Your task to perform on an android device: Open settings on Google Maps Image 0: 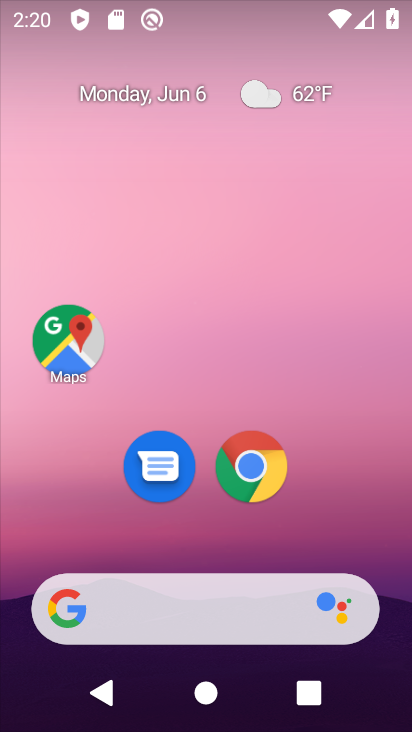
Step 0: drag from (387, 565) to (255, 156)
Your task to perform on an android device: Open settings on Google Maps Image 1: 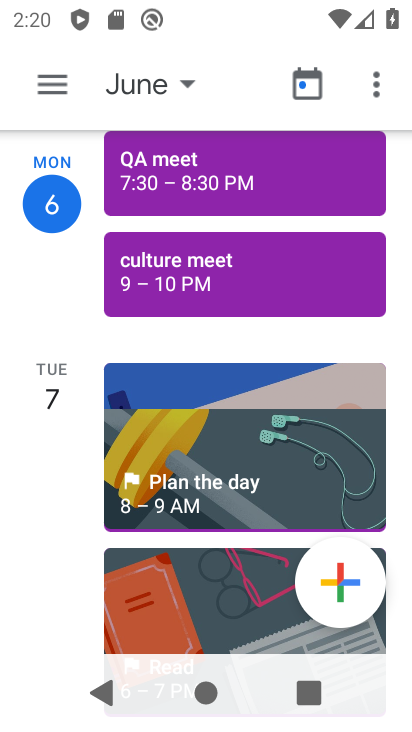
Step 1: press home button
Your task to perform on an android device: Open settings on Google Maps Image 2: 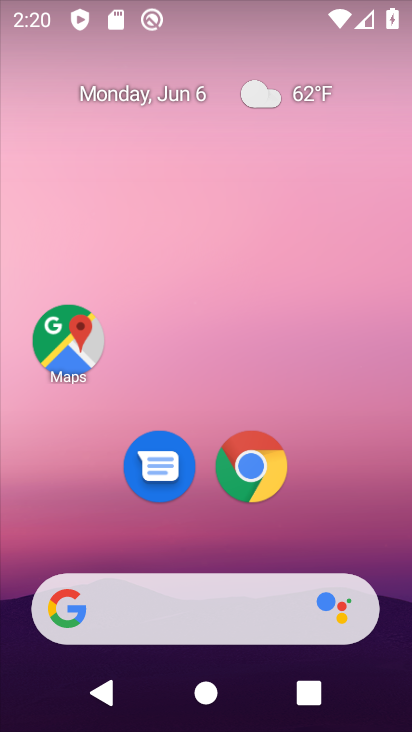
Step 2: drag from (387, 581) to (333, 282)
Your task to perform on an android device: Open settings on Google Maps Image 3: 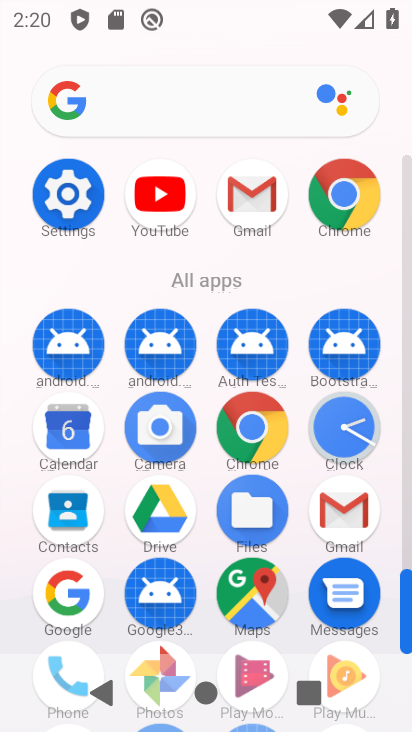
Step 3: click (258, 590)
Your task to perform on an android device: Open settings on Google Maps Image 4: 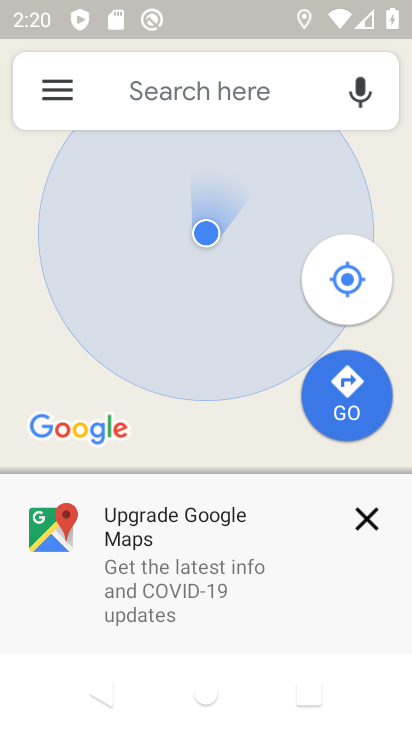
Step 4: click (67, 103)
Your task to perform on an android device: Open settings on Google Maps Image 5: 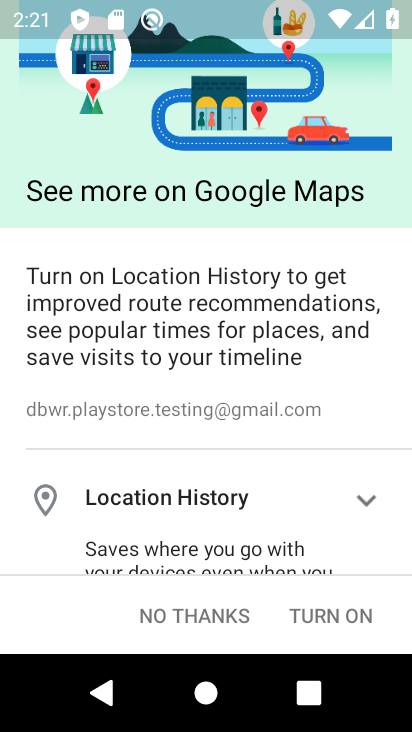
Step 5: drag from (243, 571) to (218, 138)
Your task to perform on an android device: Open settings on Google Maps Image 6: 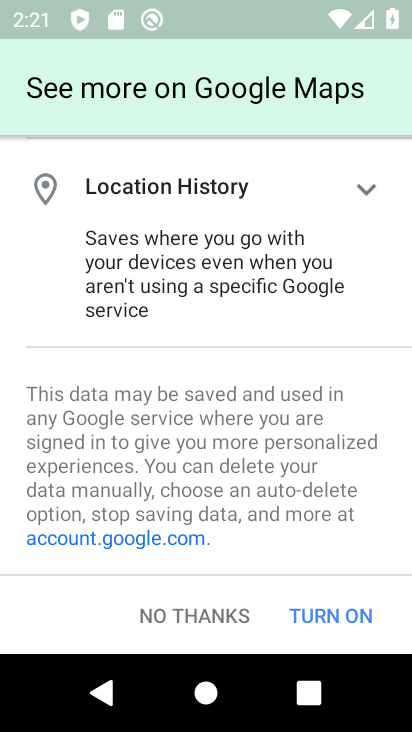
Step 6: click (191, 618)
Your task to perform on an android device: Open settings on Google Maps Image 7: 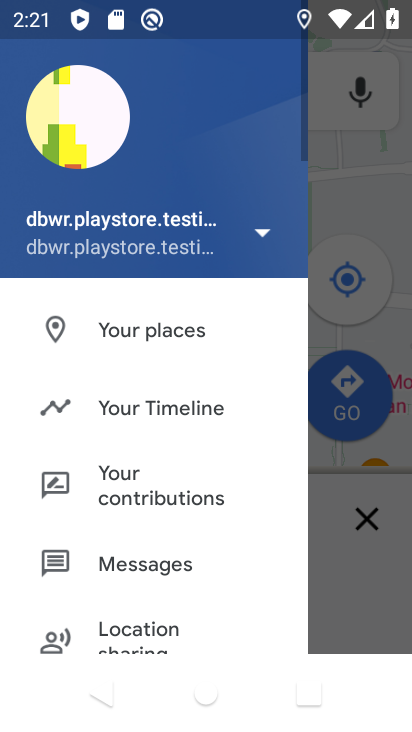
Step 7: drag from (162, 637) to (186, 65)
Your task to perform on an android device: Open settings on Google Maps Image 8: 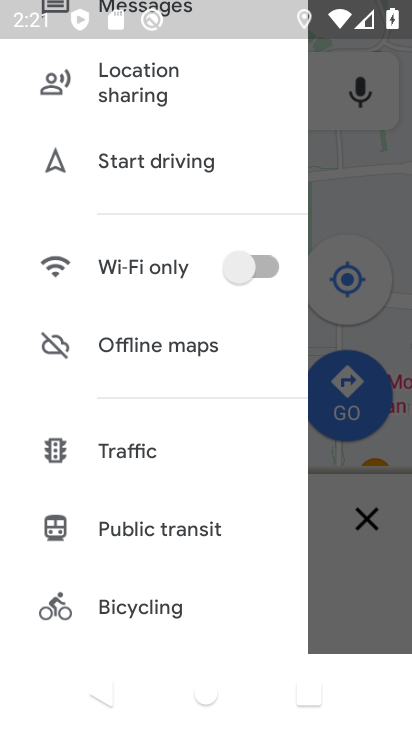
Step 8: drag from (148, 553) to (145, 206)
Your task to perform on an android device: Open settings on Google Maps Image 9: 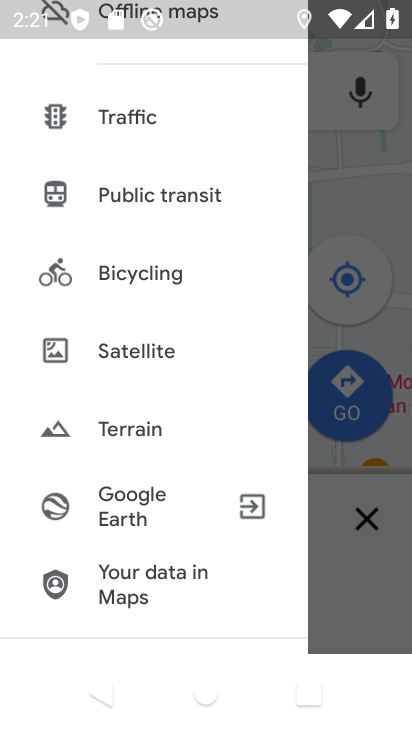
Step 9: drag from (150, 589) to (165, 263)
Your task to perform on an android device: Open settings on Google Maps Image 10: 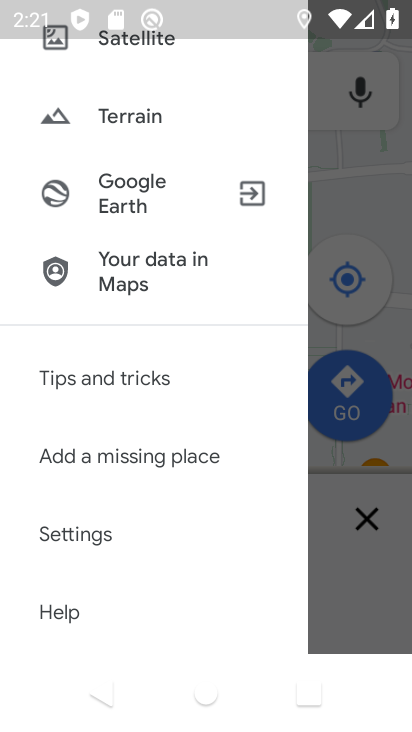
Step 10: click (141, 542)
Your task to perform on an android device: Open settings on Google Maps Image 11: 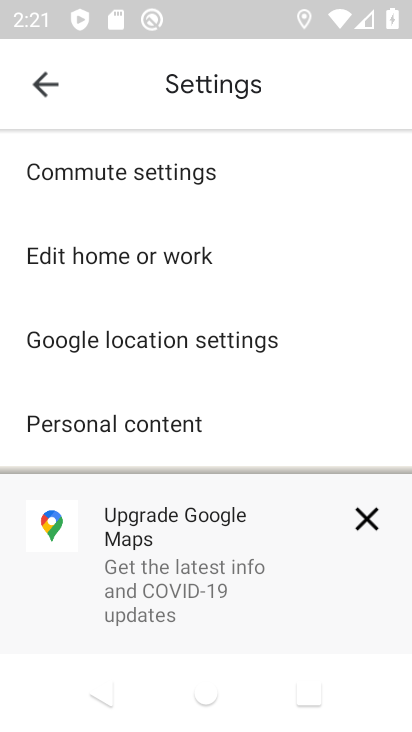
Step 11: click (373, 527)
Your task to perform on an android device: Open settings on Google Maps Image 12: 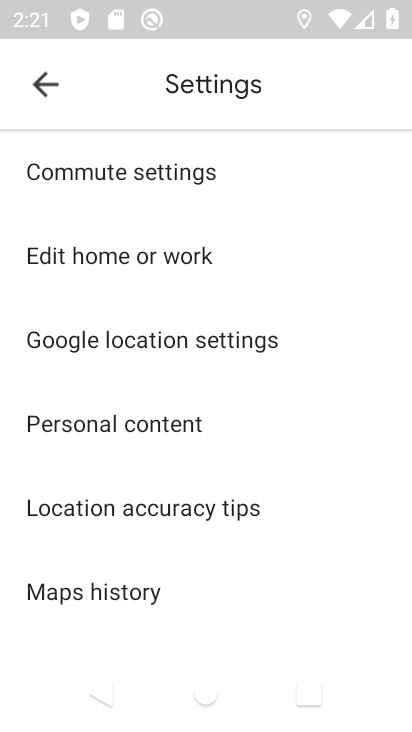
Step 12: task complete